Your task to perform on an android device: install app "DuckDuckGo Privacy Browser" Image 0: 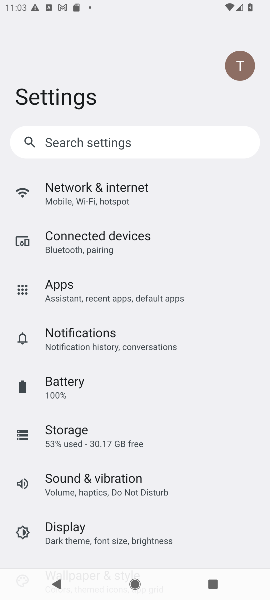
Step 0: press back button
Your task to perform on an android device: install app "DuckDuckGo Privacy Browser" Image 1: 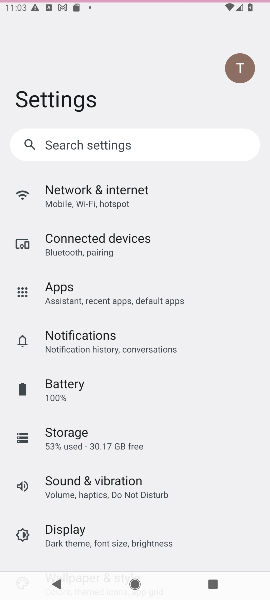
Step 1: press home button
Your task to perform on an android device: install app "DuckDuckGo Privacy Browser" Image 2: 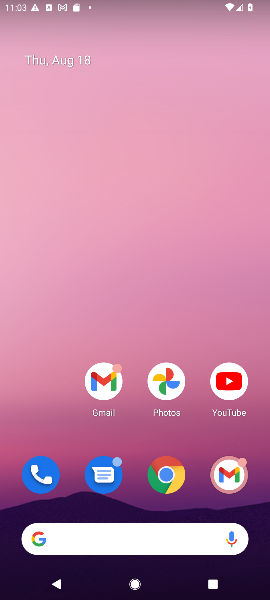
Step 2: drag from (125, 527) to (251, 26)
Your task to perform on an android device: install app "DuckDuckGo Privacy Browser" Image 3: 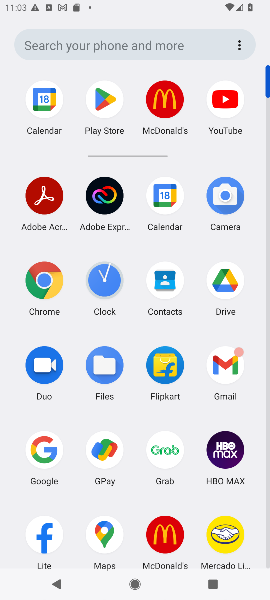
Step 3: click (100, 103)
Your task to perform on an android device: install app "DuckDuckGo Privacy Browser" Image 4: 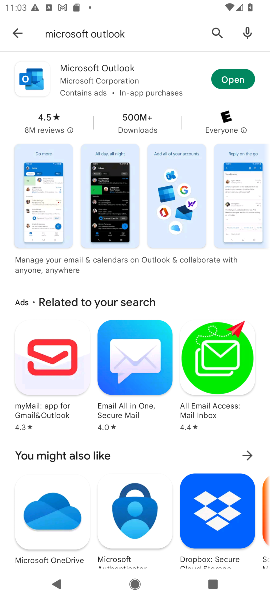
Step 4: click (18, 31)
Your task to perform on an android device: install app "DuckDuckGo Privacy Browser" Image 5: 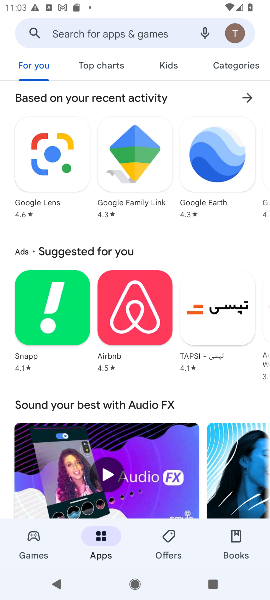
Step 5: click (59, 39)
Your task to perform on an android device: install app "DuckDuckGo Privacy Browser" Image 6: 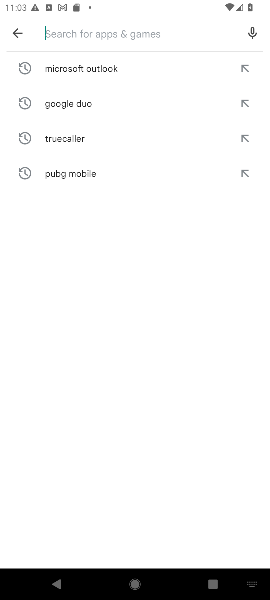
Step 6: type "DuckDuckGo Privacy Browser"
Your task to perform on an android device: install app "DuckDuckGo Privacy Browser" Image 7: 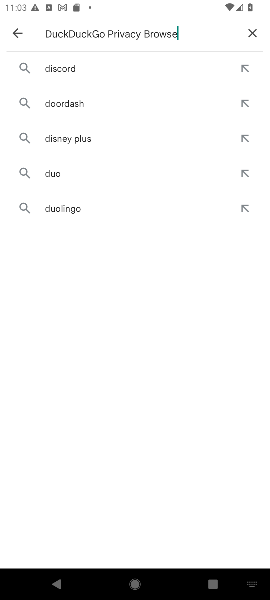
Step 7: type ""
Your task to perform on an android device: install app "DuckDuckGo Privacy Browser" Image 8: 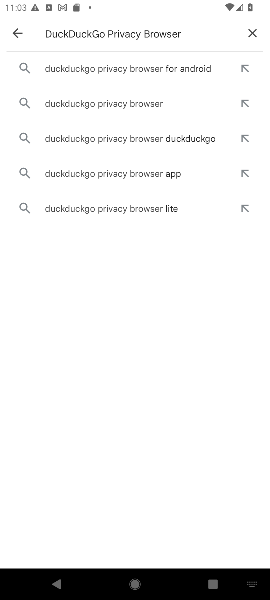
Step 8: click (70, 70)
Your task to perform on an android device: install app "DuckDuckGo Privacy Browser" Image 9: 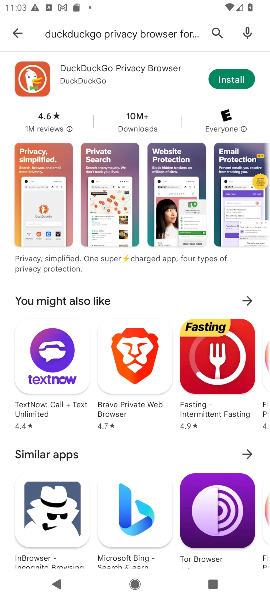
Step 9: click (241, 78)
Your task to perform on an android device: install app "DuckDuckGo Privacy Browser" Image 10: 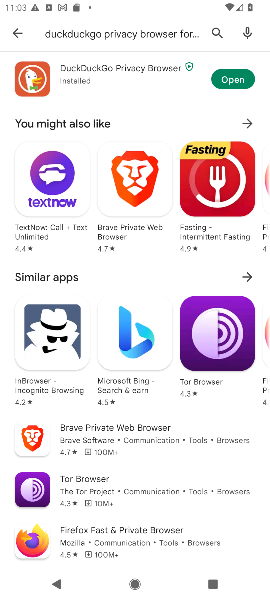
Step 10: click (238, 80)
Your task to perform on an android device: install app "DuckDuckGo Privacy Browser" Image 11: 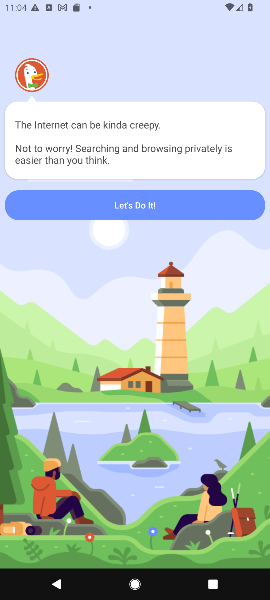
Step 11: task complete